Your task to perform on an android device: Open the web browser Image 0: 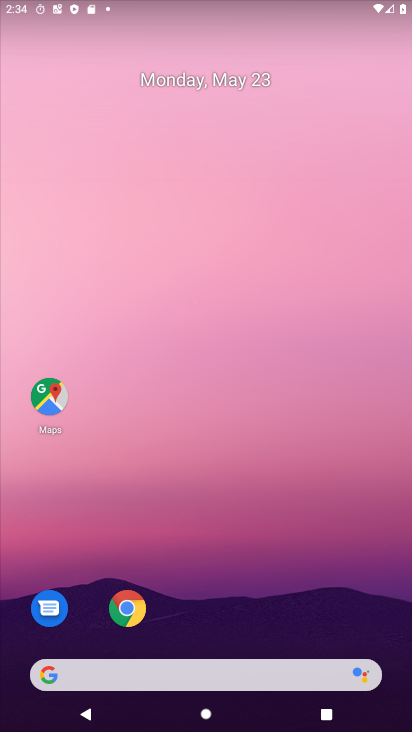
Step 0: drag from (249, 623) to (231, 22)
Your task to perform on an android device: Open the web browser Image 1: 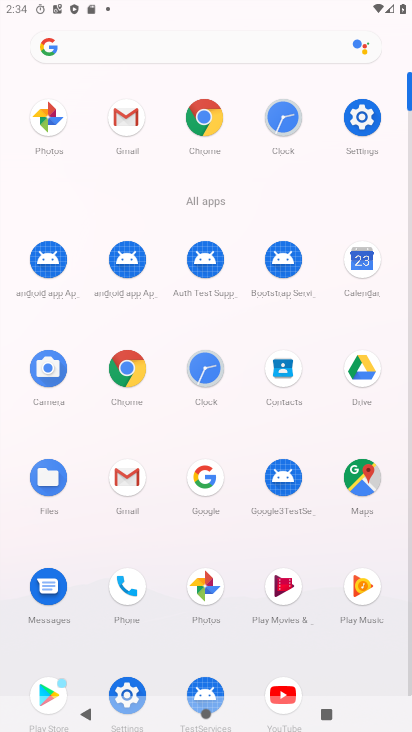
Step 1: click (206, 124)
Your task to perform on an android device: Open the web browser Image 2: 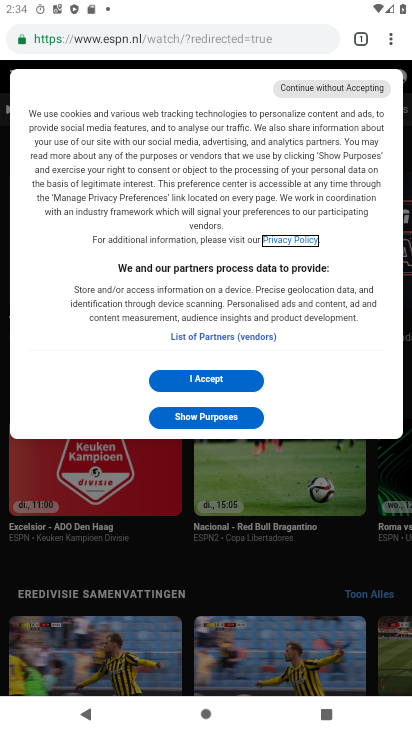
Step 2: task complete